Your task to perform on an android device: empty trash in the gmail app Image 0: 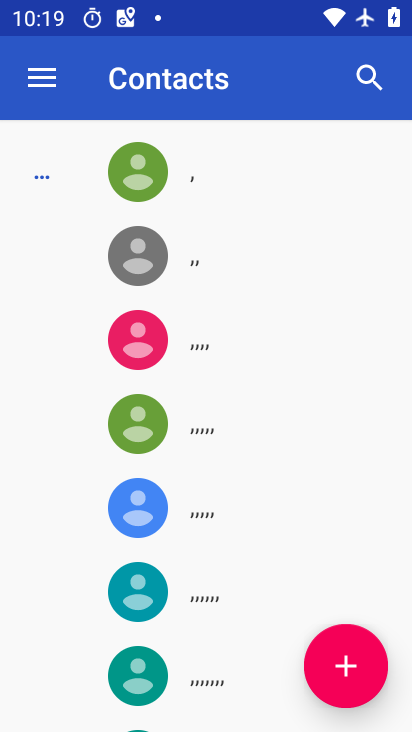
Step 0: press home button
Your task to perform on an android device: empty trash in the gmail app Image 1: 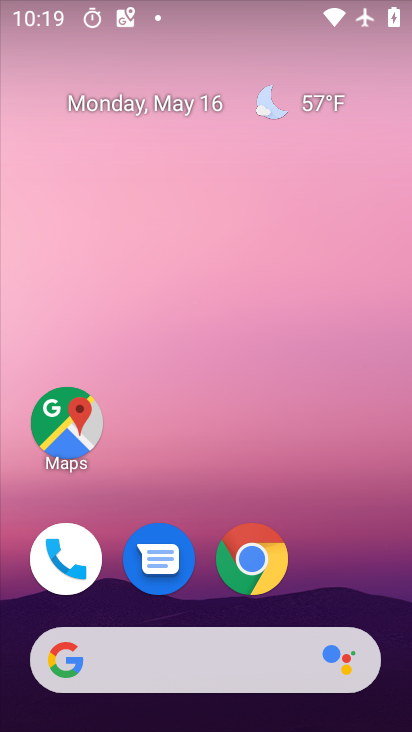
Step 1: drag from (346, 648) to (353, 193)
Your task to perform on an android device: empty trash in the gmail app Image 2: 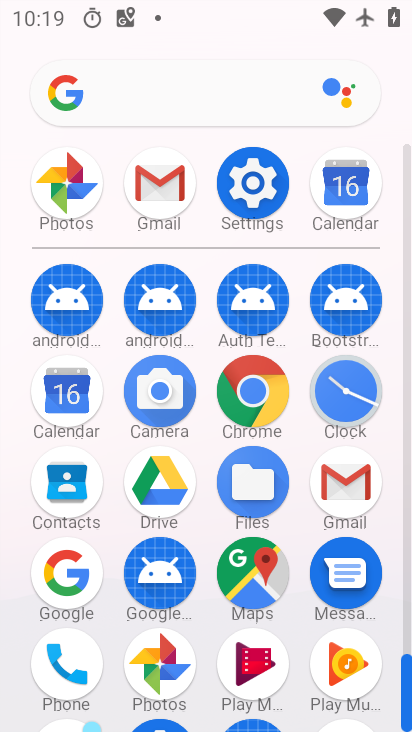
Step 2: click (159, 183)
Your task to perform on an android device: empty trash in the gmail app Image 3: 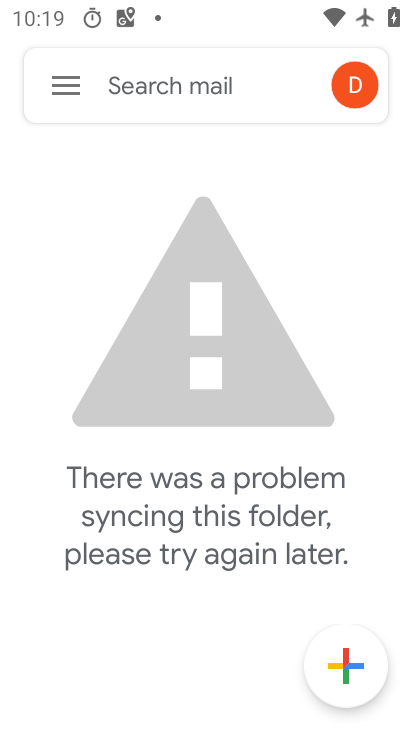
Step 3: click (69, 81)
Your task to perform on an android device: empty trash in the gmail app Image 4: 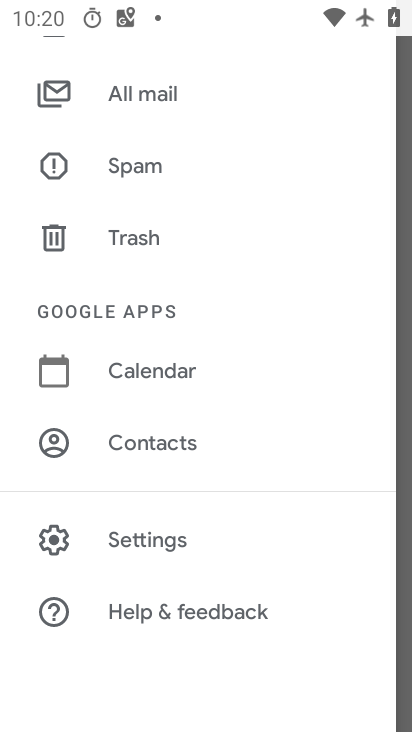
Step 4: click (139, 240)
Your task to perform on an android device: empty trash in the gmail app Image 5: 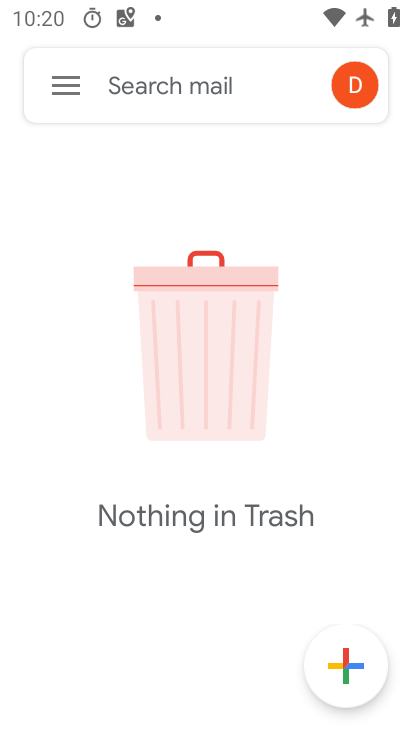
Step 5: task complete